Your task to perform on an android device: open app "Skype" (install if not already installed) and go to login screen Image 0: 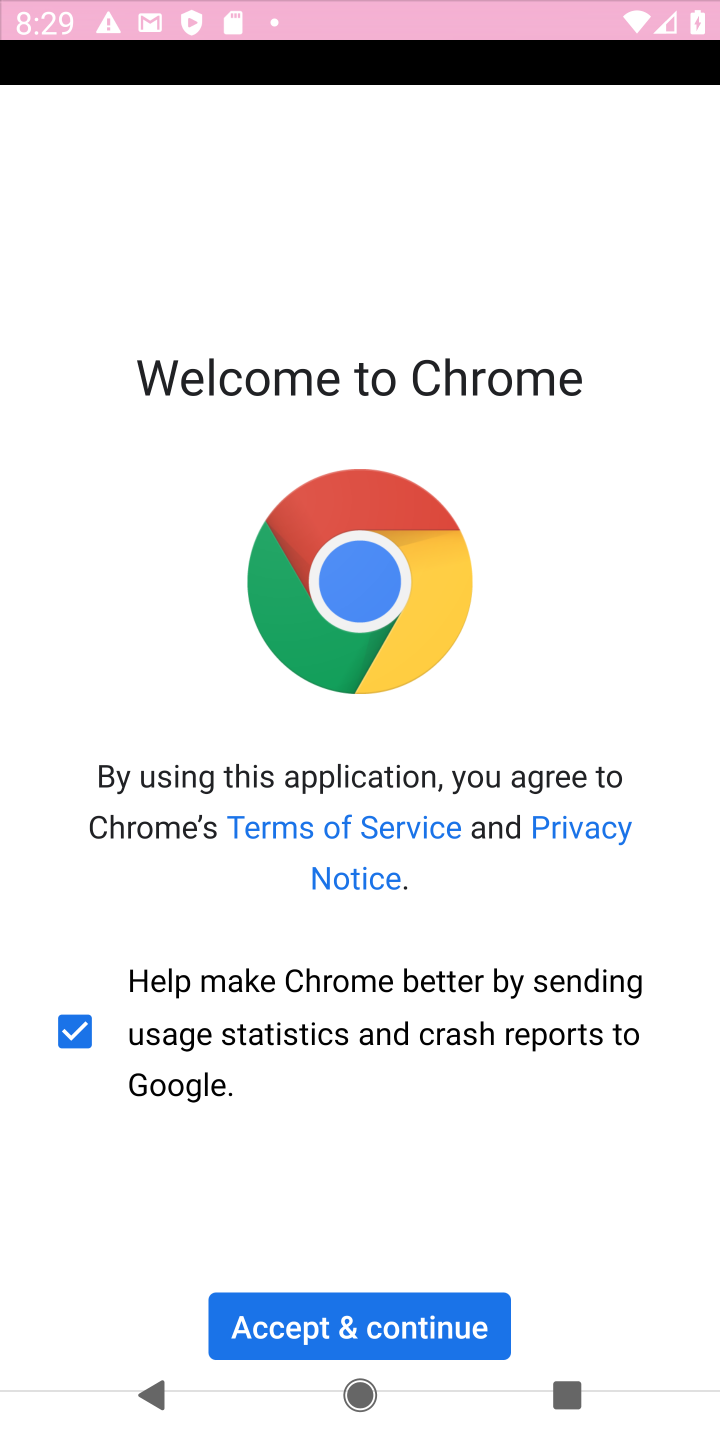
Step 0: press home button
Your task to perform on an android device: open app "Skype" (install if not already installed) and go to login screen Image 1: 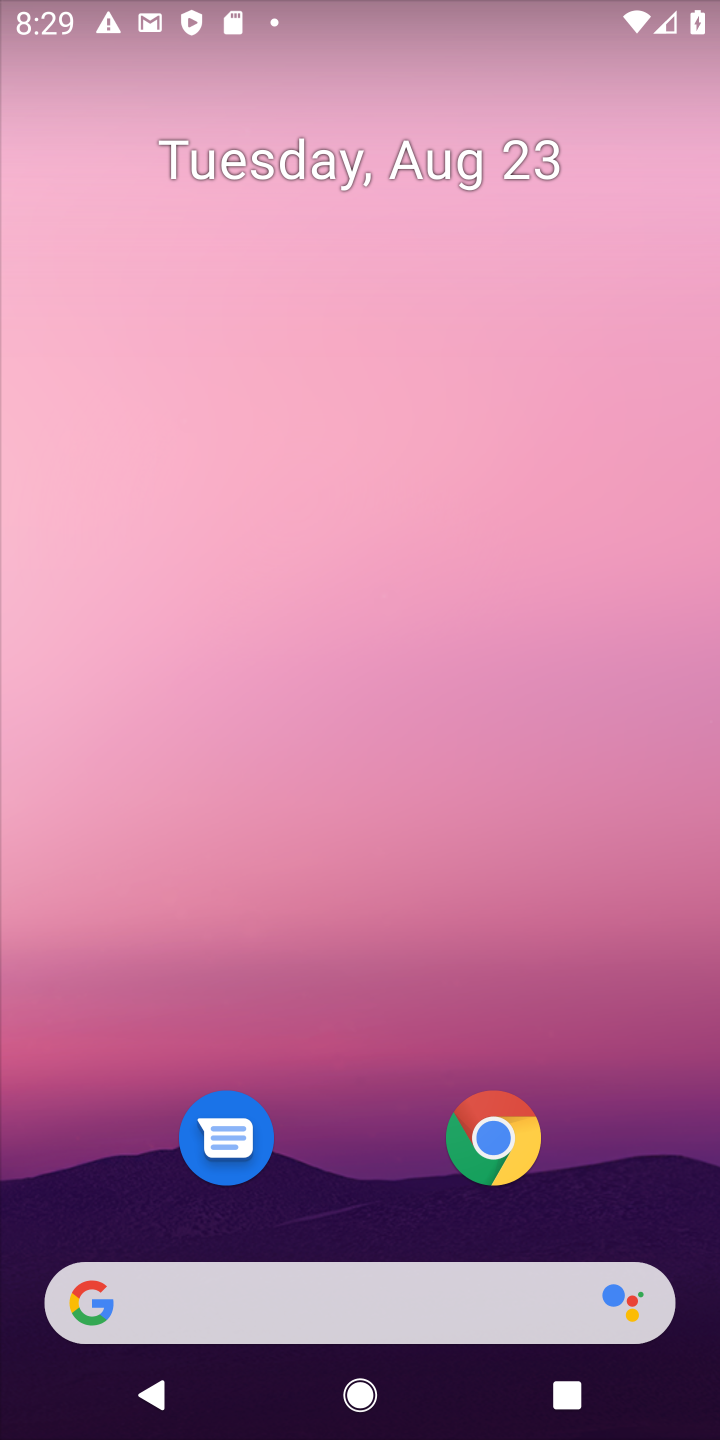
Step 1: drag from (621, 1027) to (645, 129)
Your task to perform on an android device: open app "Skype" (install if not already installed) and go to login screen Image 2: 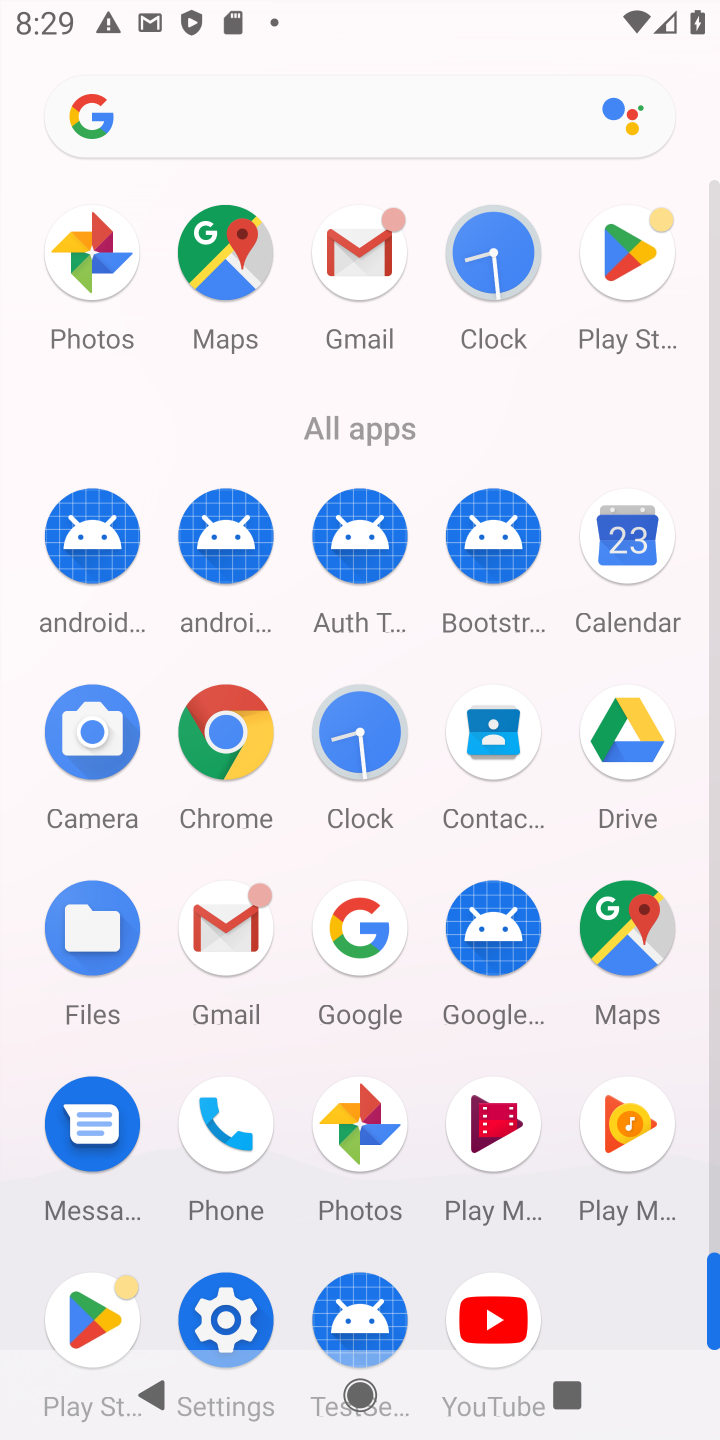
Step 2: click (627, 255)
Your task to perform on an android device: open app "Skype" (install if not already installed) and go to login screen Image 3: 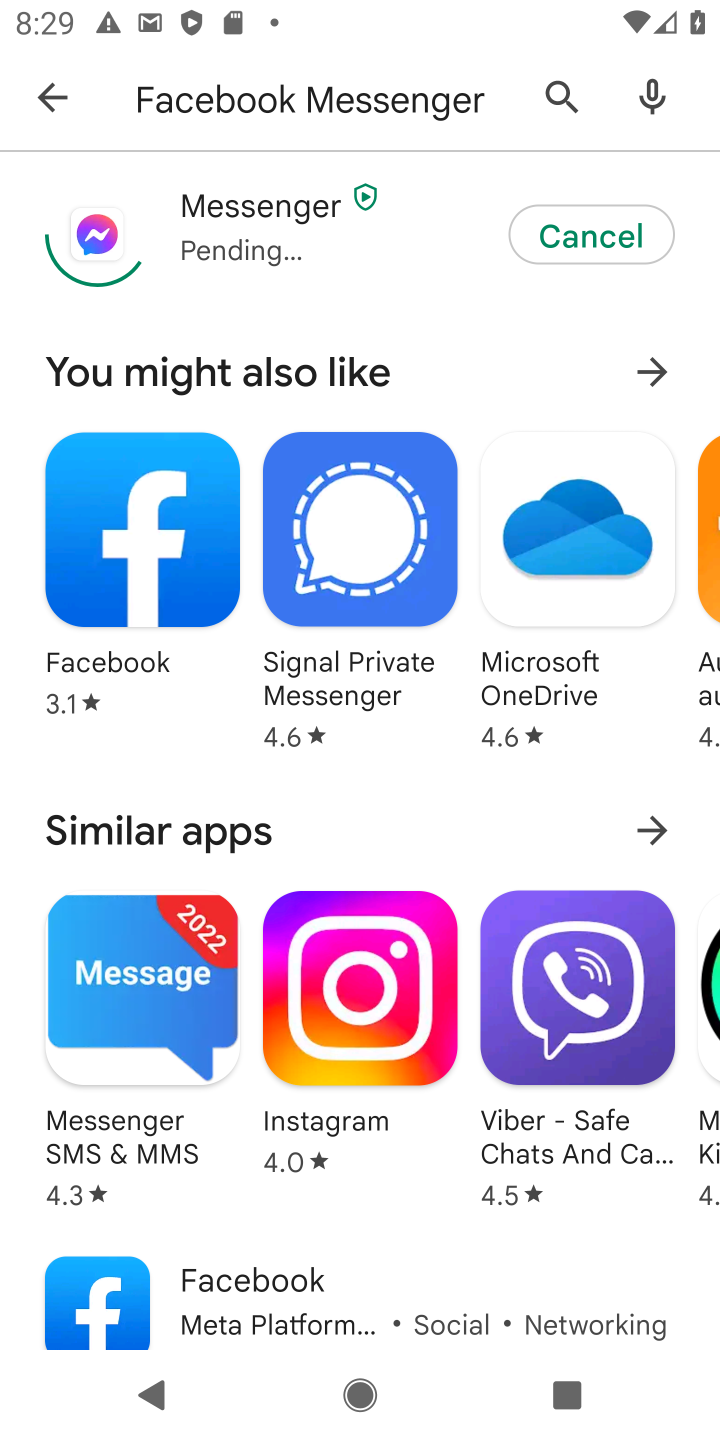
Step 3: press back button
Your task to perform on an android device: open app "Skype" (install if not already installed) and go to login screen Image 4: 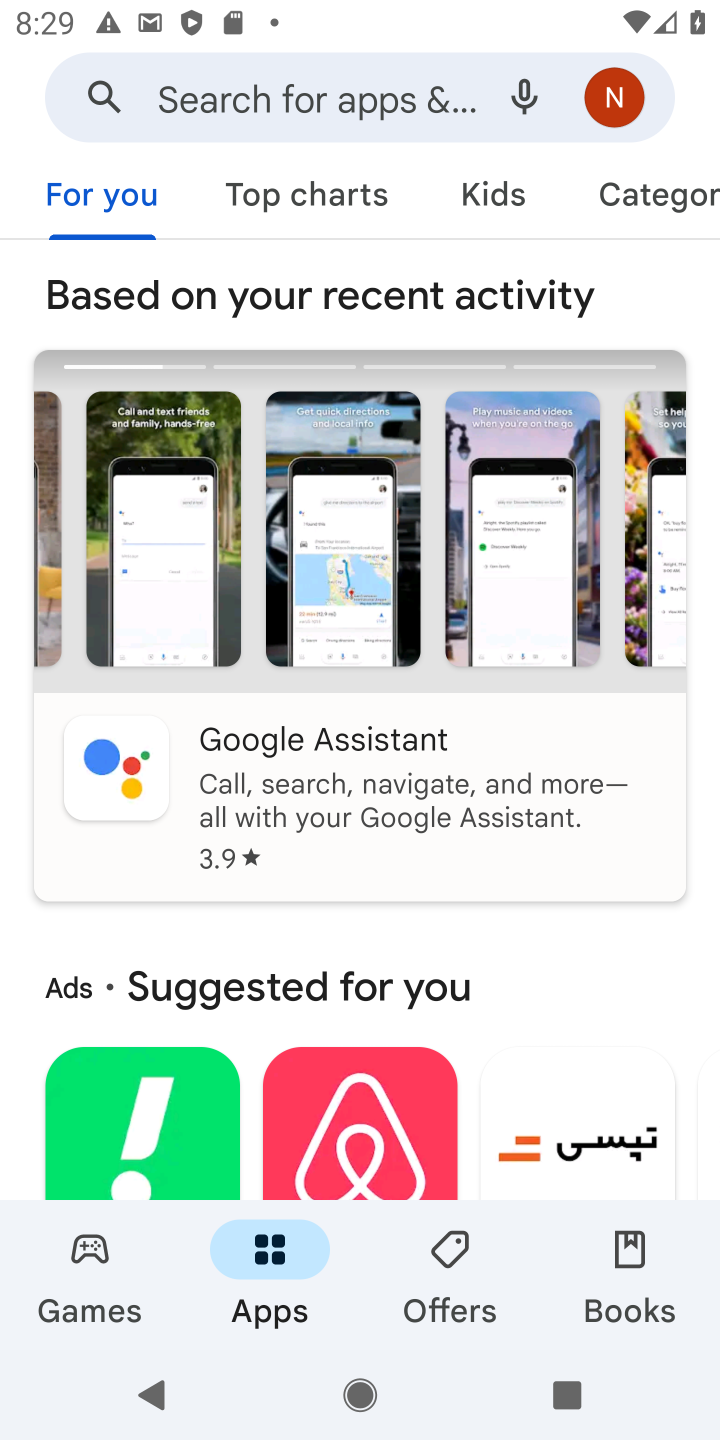
Step 4: click (284, 89)
Your task to perform on an android device: open app "Skype" (install if not already installed) and go to login screen Image 5: 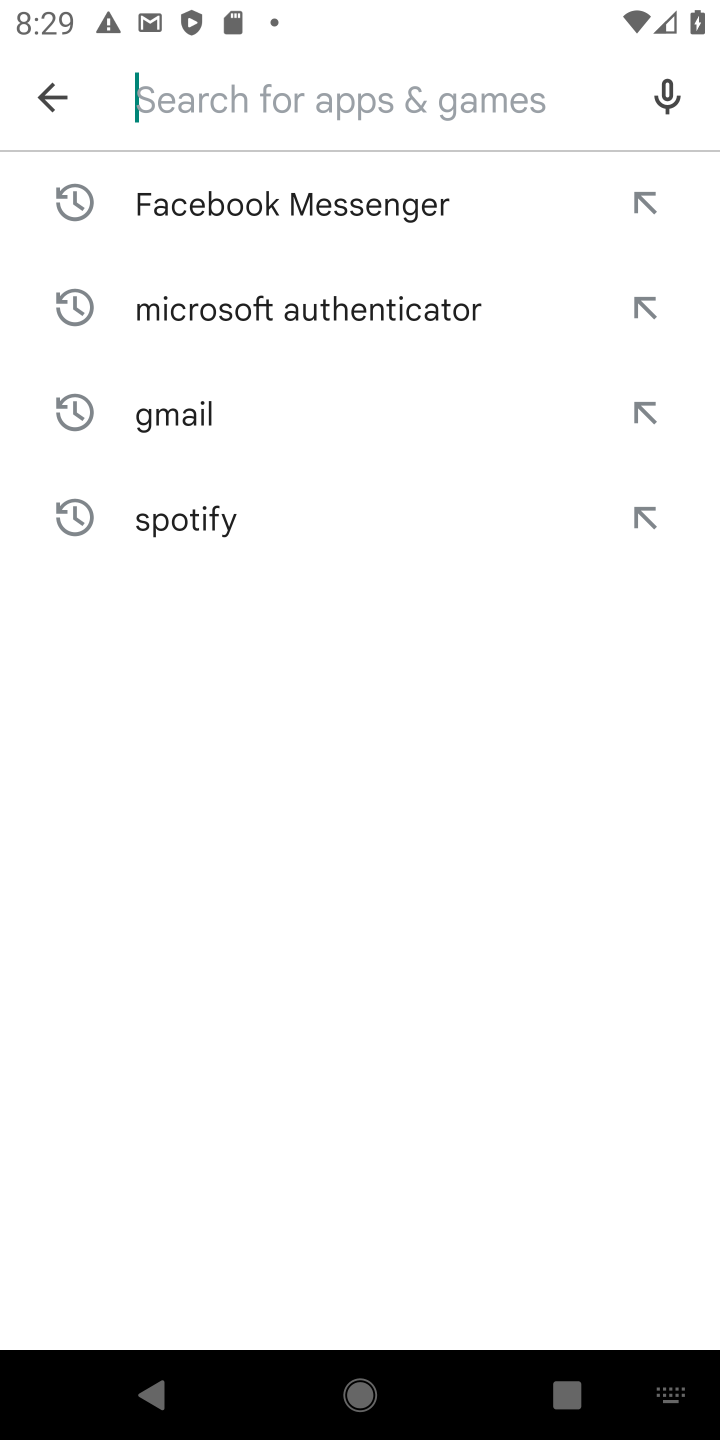
Step 5: type "skype"
Your task to perform on an android device: open app "Skype" (install if not already installed) and go to login screen Image 6: 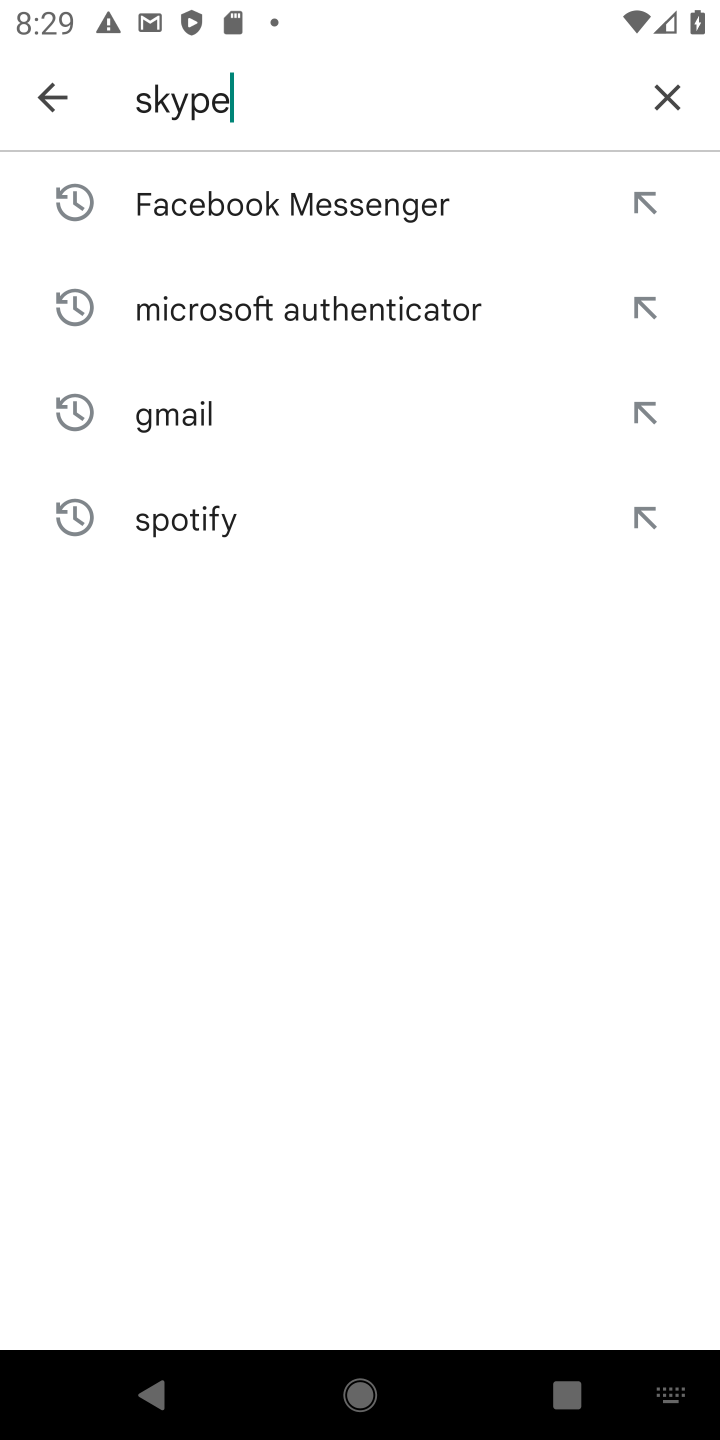
Step 6: press enter
Your task to perform on an android device: open app "Skype" (install if not already installed) and go to login screen Image 7: 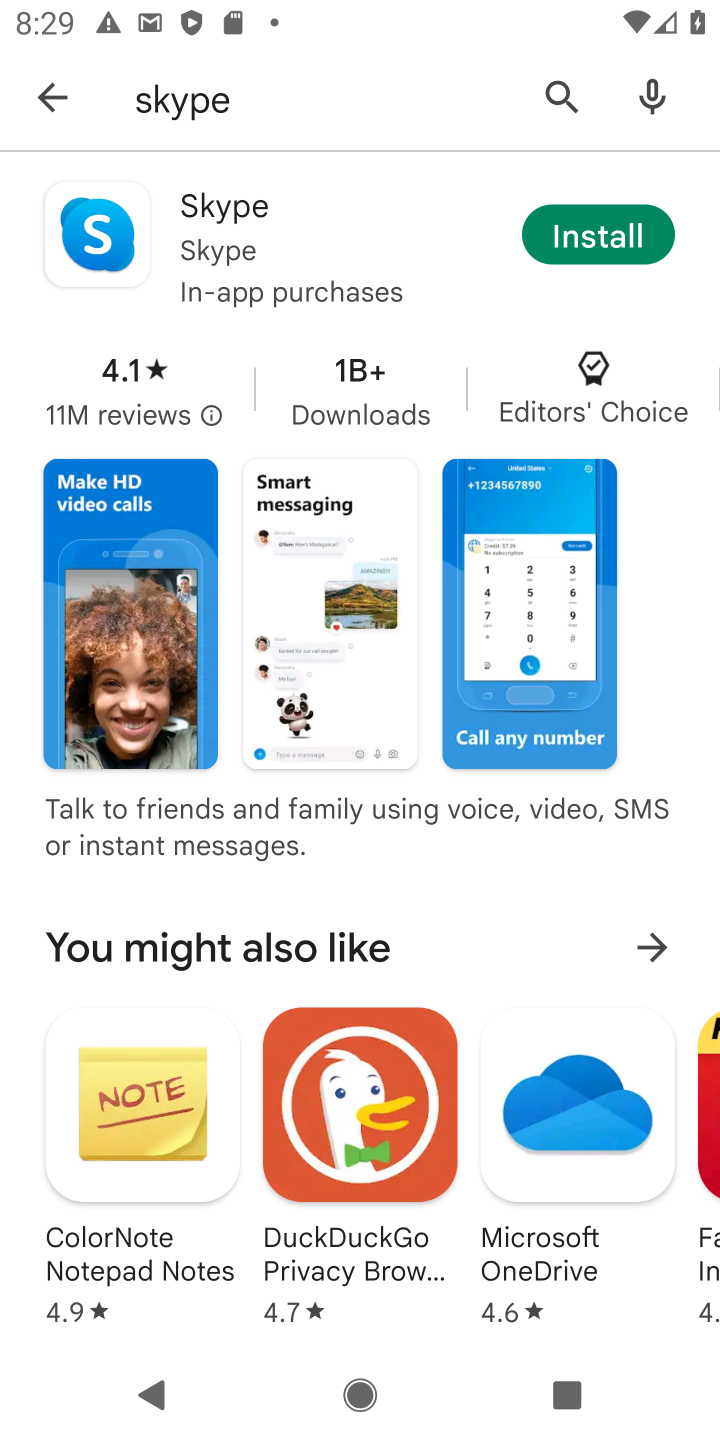
Step 7: click (592, 226)
Your task to perform on an android device: open app "Skype" (install if not already installed) and go to login screen Image 8: 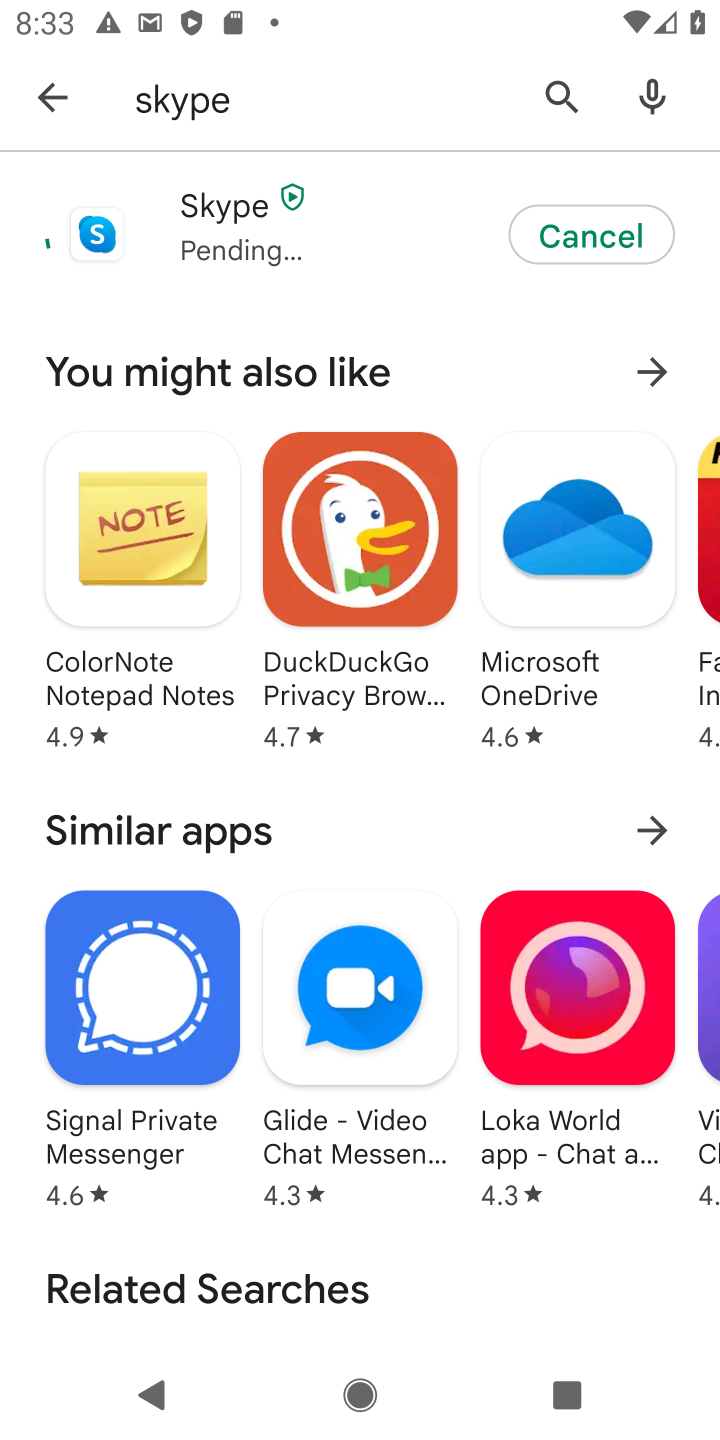
Step 8: task complete